Your task to perform on an android device: toggle notifications settings in the gmail app Image 0: 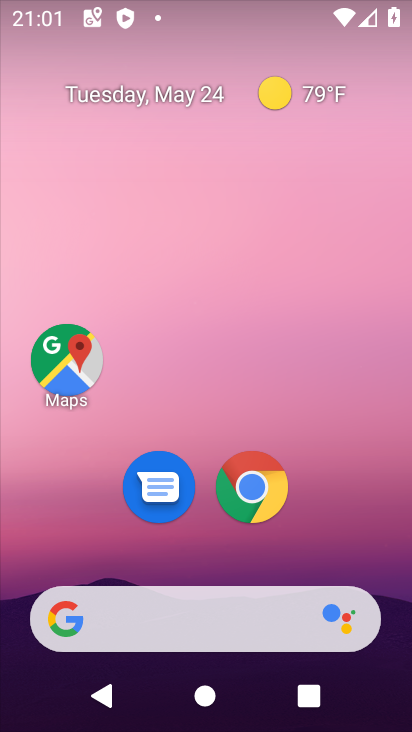
Step 0: press home button
Your task to perform on an android device: toggle notifications settings in the gmail app Image 1: 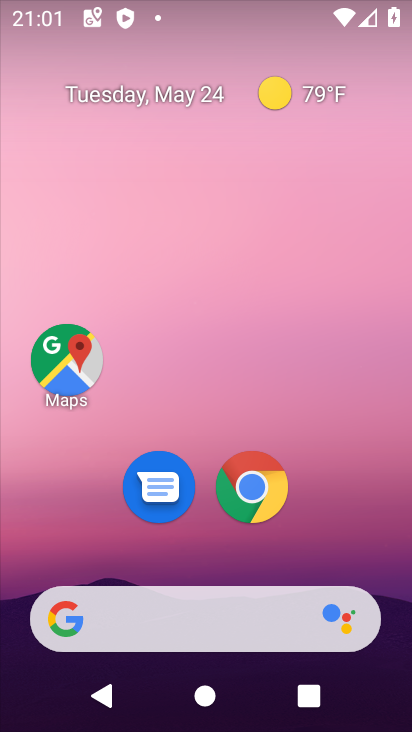
Step 1: drag from (390, 555) to (357, 17)
Your task to perform on an android device: toggle notifications settings in the gmail app Image 2: 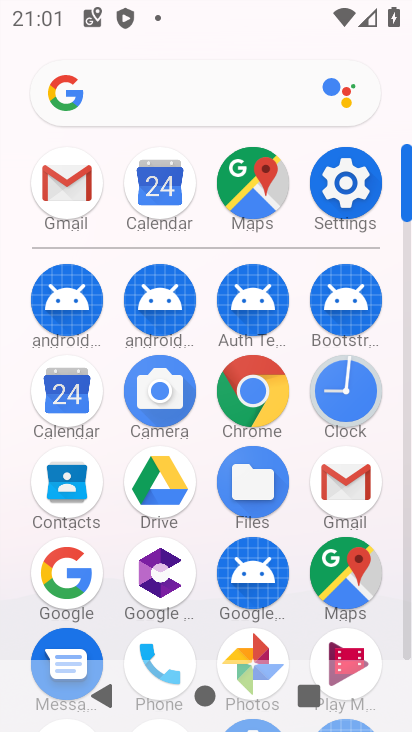
Step 2: click (49, 203)
Your task to perform on an android device: toggle notifications settings in the gmail app Image 3: 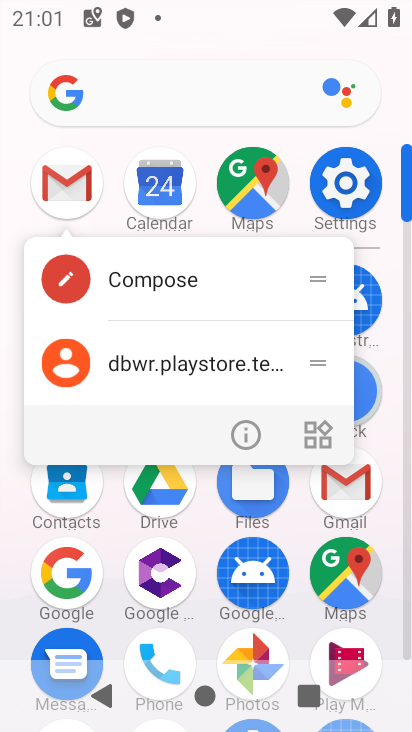
Step 3: click (240, 445)
Your task to perform on an android device: toggle notifications settings in the gmail app Image 4: 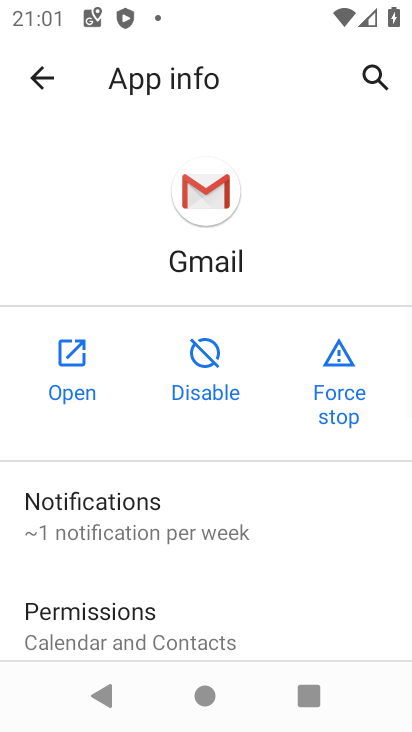
Step 4: click (90, 527)
Your task to perform on an android device: toggle notifications settings in the gmail app Image 5: 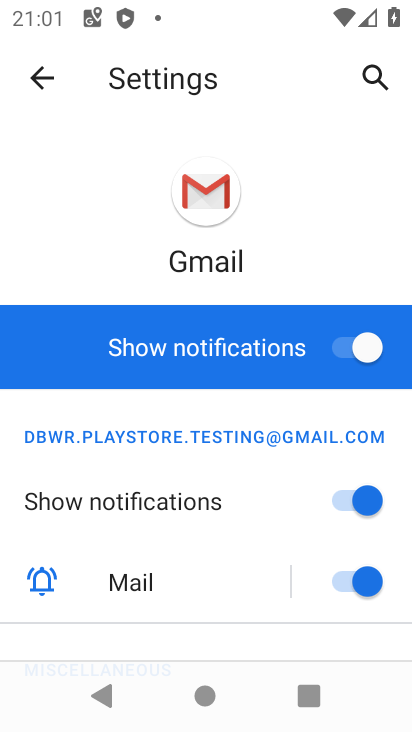
Step 5: click (365, 353)
Your task to perform on an android device: toggle notifications settings in the gmail app Image 6: 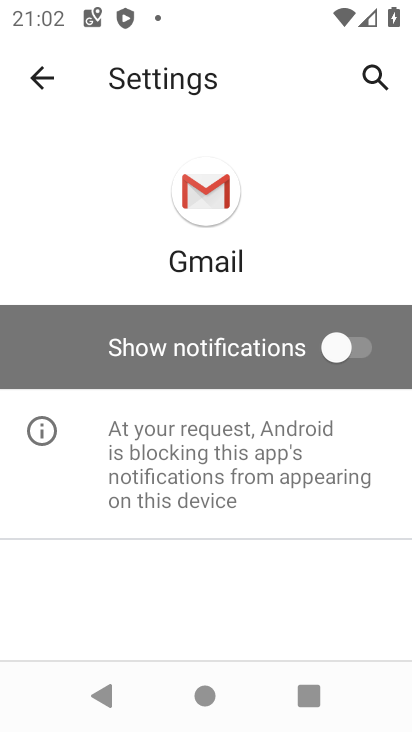
Step 6: task complete